Your task to perform on an android device: Search for Mexican restaurants on Maps Image 0: 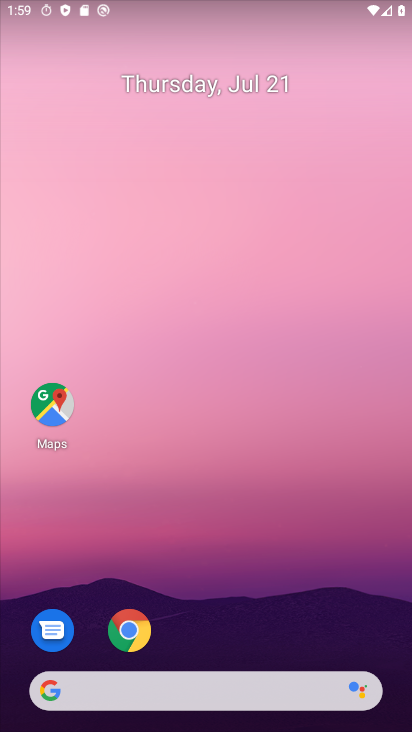
Step 0: click (50, 406)
Your task to perform on an android device: Search for Mexican restaurants on Maps Image 1: 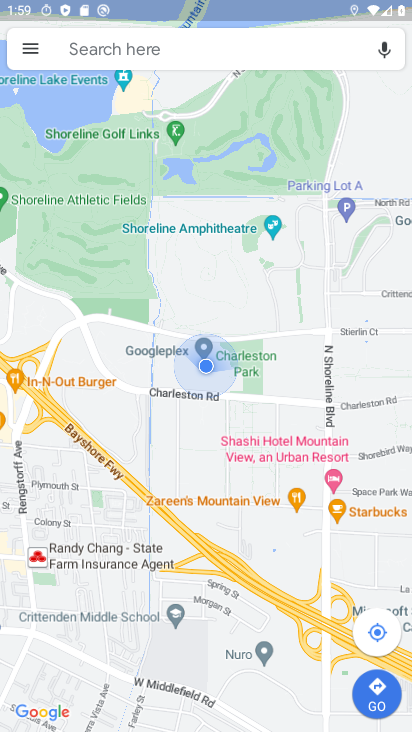
Step 1: click (135, 59)
Your task to perform on an android device: Search for Mexican restaurants on Maps Image 2: 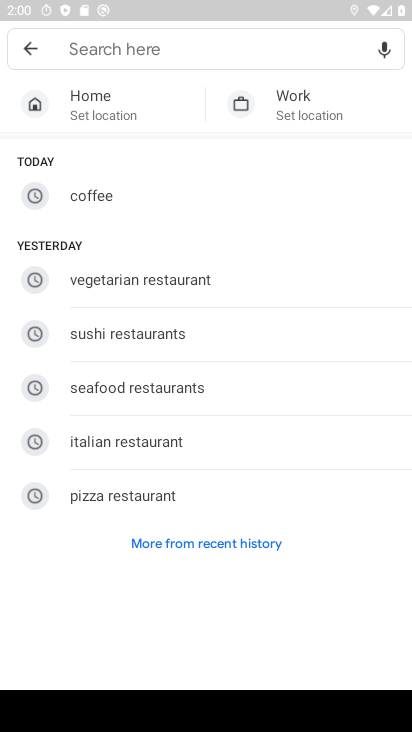
Step 2: type "mexican restaurant"
Your task to perform on an android device: Search for Mexican restaurants on Maps Image 3: 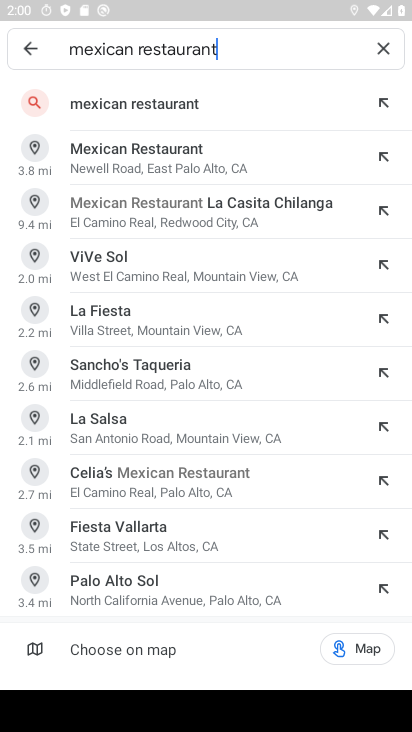
Step 3: click (168, 99)
Your task to perform on an android device: Search for Mexican restaurants on Maps Image 4: 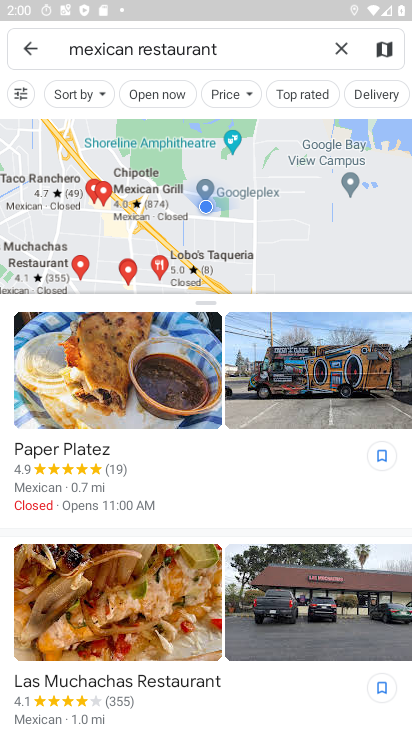
Step 4: task complete